Your task to perform on an android device: Show me popular games on the Play Store Image 0: 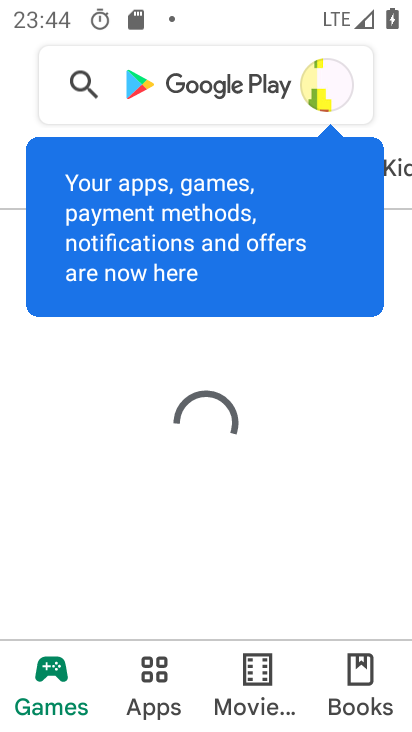
Step 0: press home button
Your task to perform on an android device: Show me popular games on the Play Store Image 1: 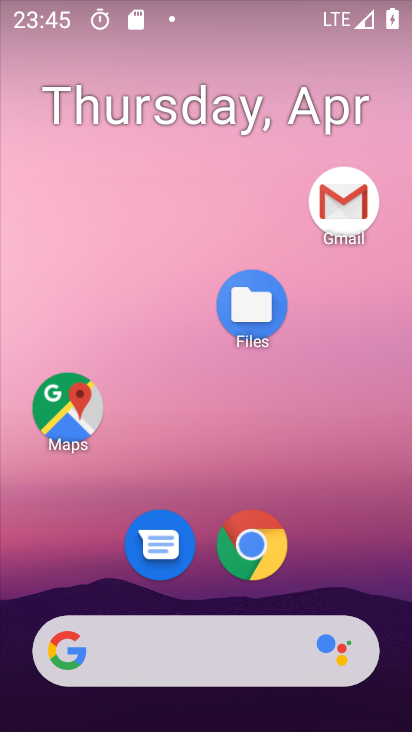
Step 1: drag from (337, 460) to (322, 86)
Your task to perform on an android device: Show me popular games on the Play Store Image 2: 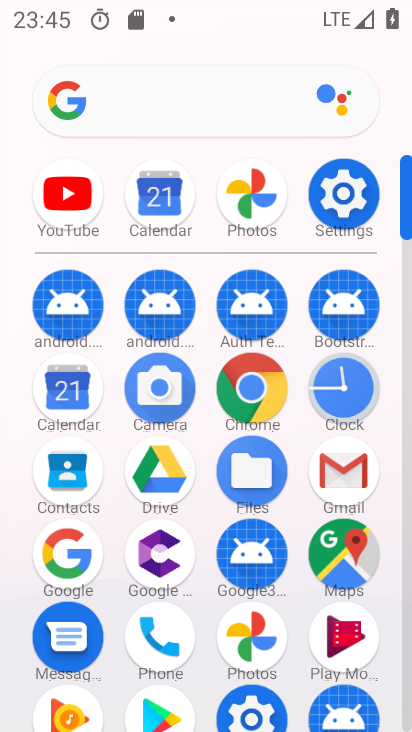
Step 2: drag from (213, 261) to (238, 22)
Your task to perform on an android device: Show me popular games on the Play Store Image 3: 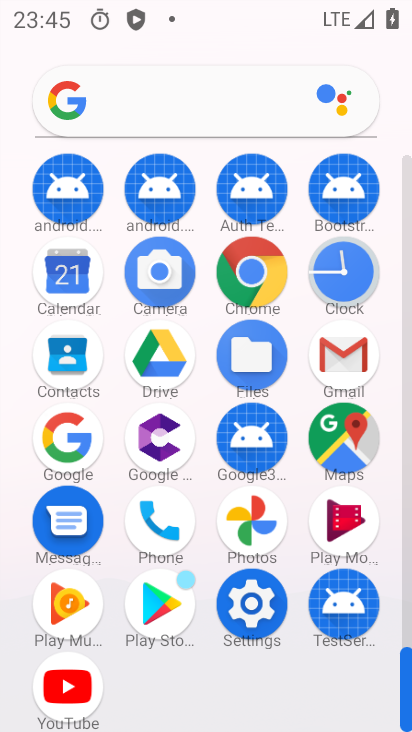
Step 3: click (161, 589)
Your task to perform on an android device: Show me popular games on the Play Store Image 4: 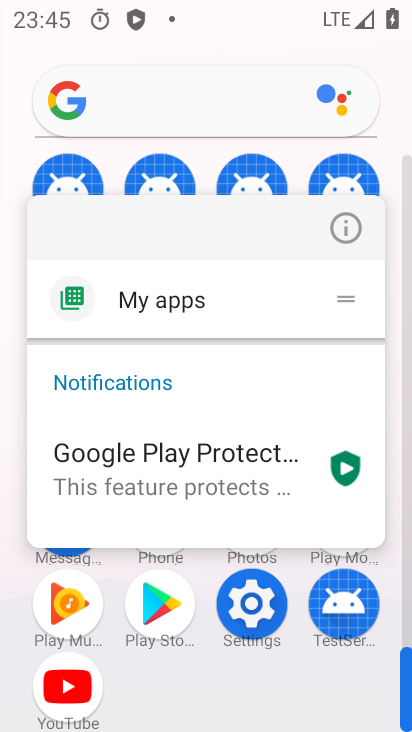
Step 4: click (167, 617)
Your task to perform on an android device: Show me popular games on the Play Store Image 5: 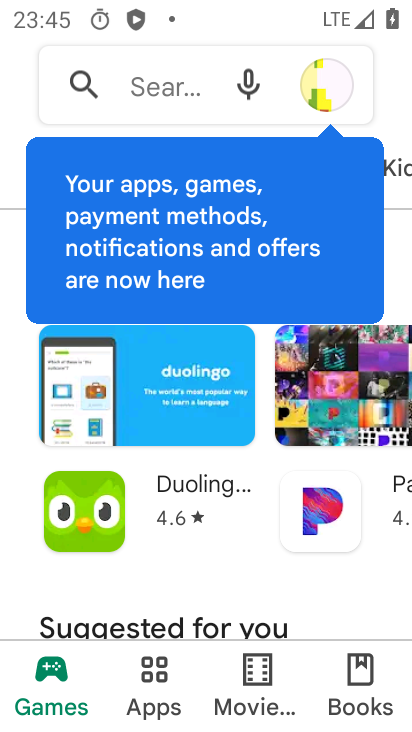
Step 5: click (59, 705)
Your task to perform on an android device: Show me popular games on the Play Store Image 6: 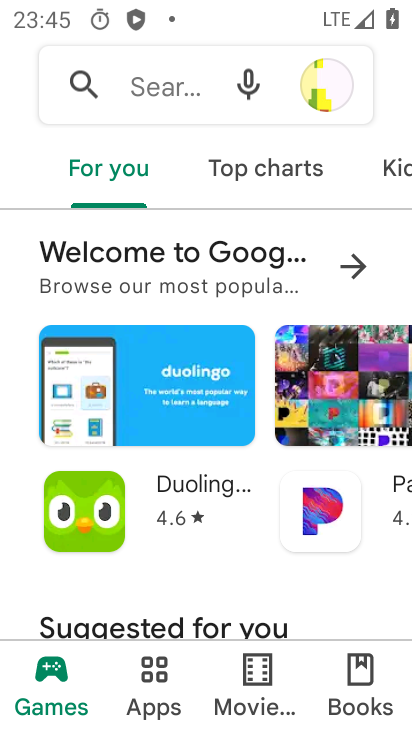
Step 6: drag from (187, 431) to (188, 173)
Your task to perform on an android device: Show me popular games on the Play Store Image 7: 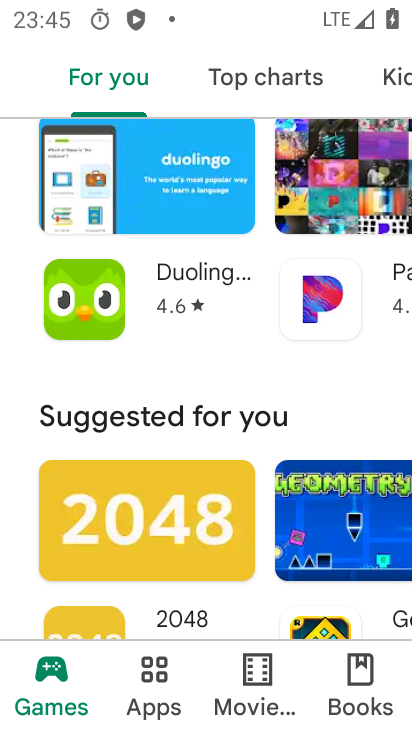
Step 7: click (271, 82)
Your task to perform on an android device: Show me popular games on the Play Store Image 8: 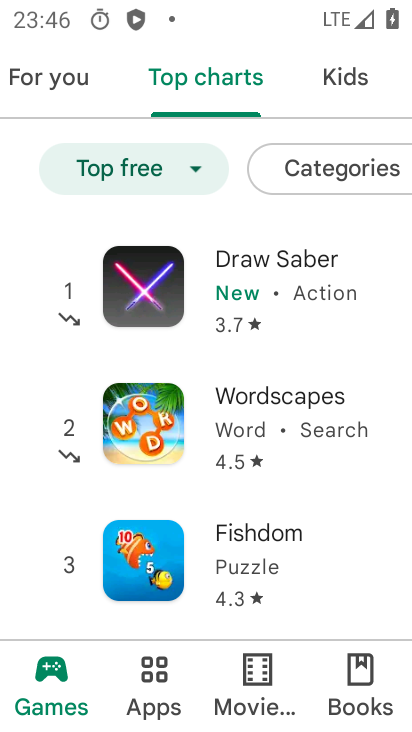
Step 8: task complete